Your task to perform on an android device: Open Google Image 0: 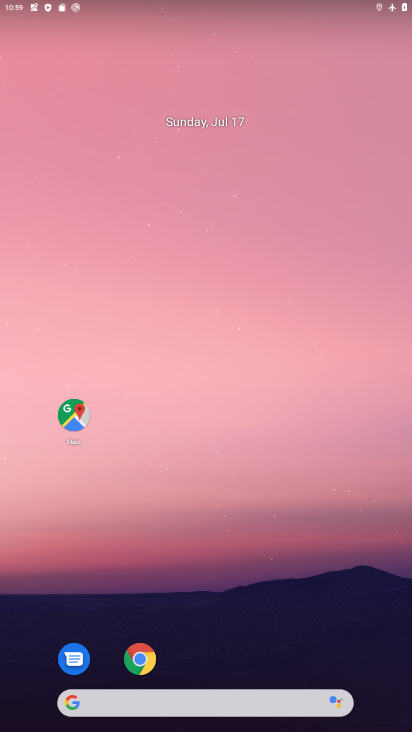
Step 0: drag from (237, 604) to (305, 95)
Your task to perform on an android device: Open Google Image 1: 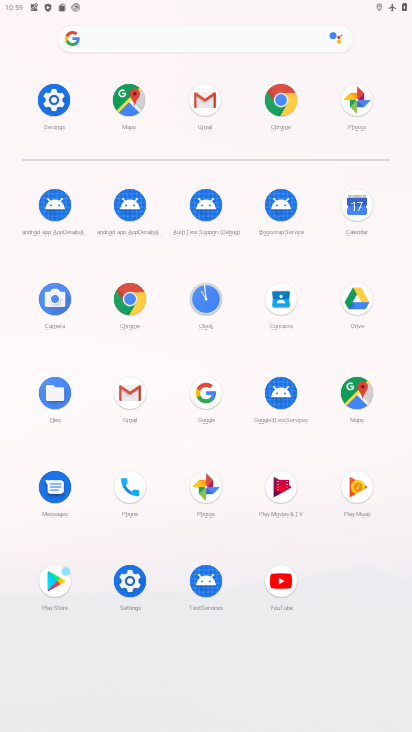
Step 1: click (206, 389)
Your task to perform on an android device: Open Google Image 2: 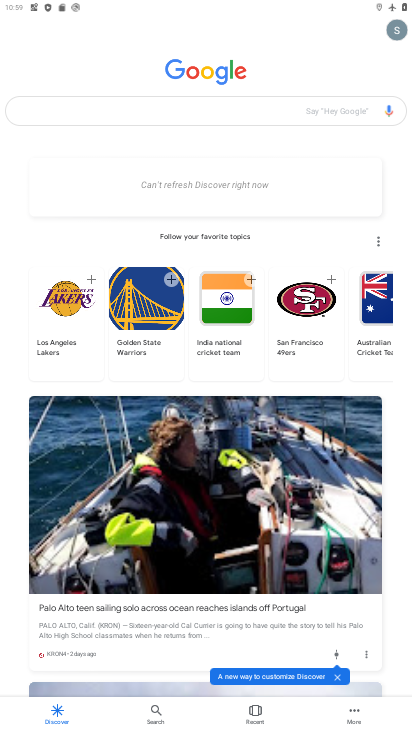
Step 2: task complete